Your task to perform on an android device: Open Google Chrome and open the bookmarks view Image 0: 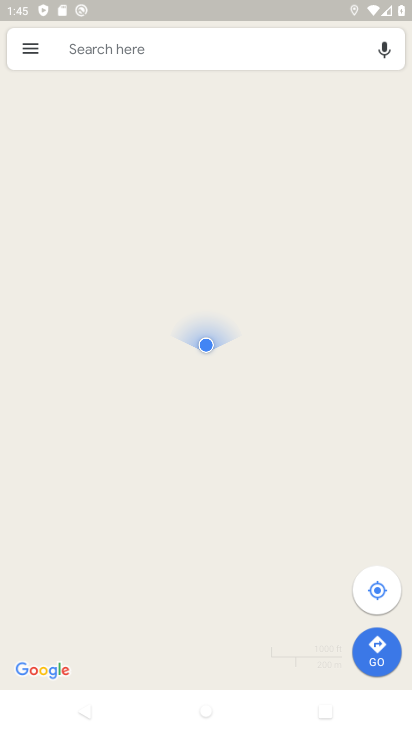
Step 0: press home button
Your task to perform on an android device: Open Google Chrome and open the bookmarks view Image 1: 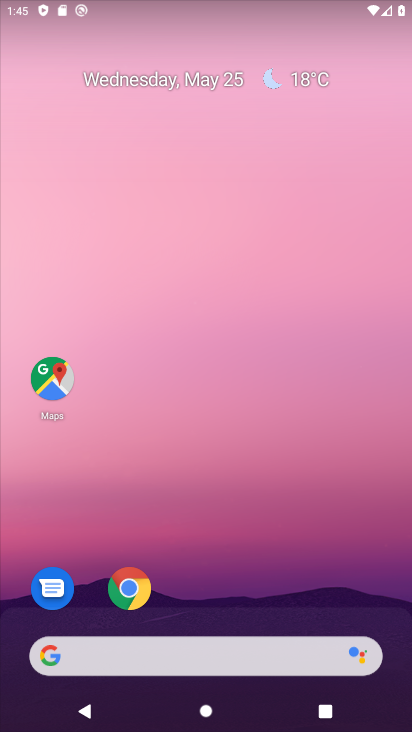
Step 1: click (127, 598)
Your task to perform on an android device: Open Google Chrome and open the bookmarks view Image 2: 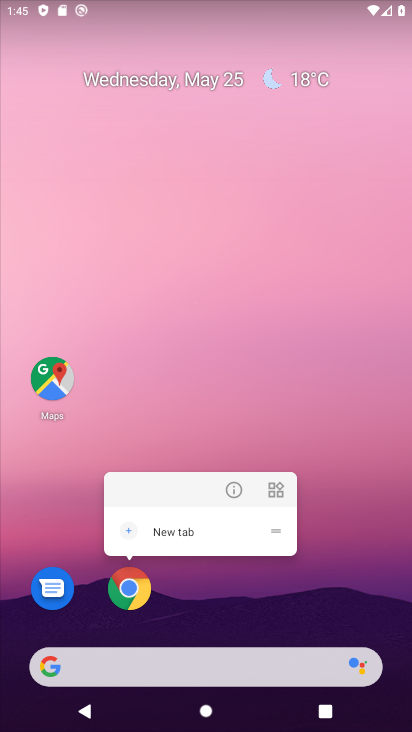
Step 2: click (150, 591)
Your task to perform on an android device: Open Google Chrome and open the bookmarks view Image 3: 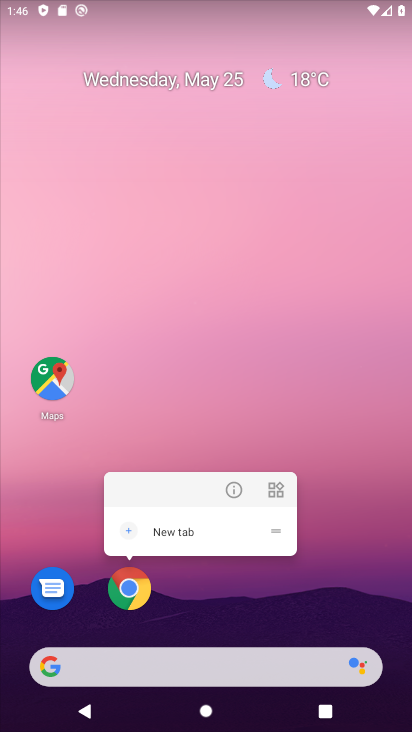
Step 3: click (150, 591)
Your task to perform on an android device: Open Google Chrome and open the bookmarks view Image 4: 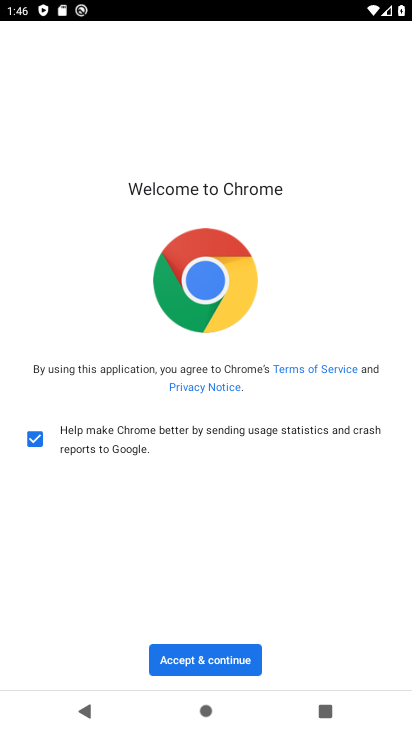
Step 4: click (217, 675)
Your task to perform on an android device: Open Google Chrome and open the bookmarks view Image 5: 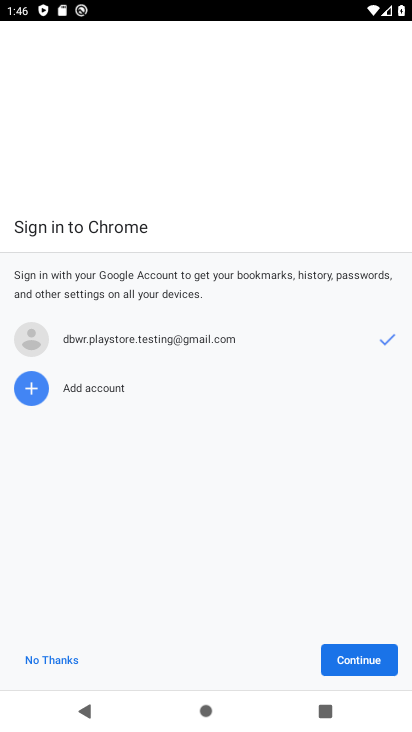
Step 5: click (378, 660)
Your task to perform on an android device: Open Google Chrome and open the bookmarks view Image 6: 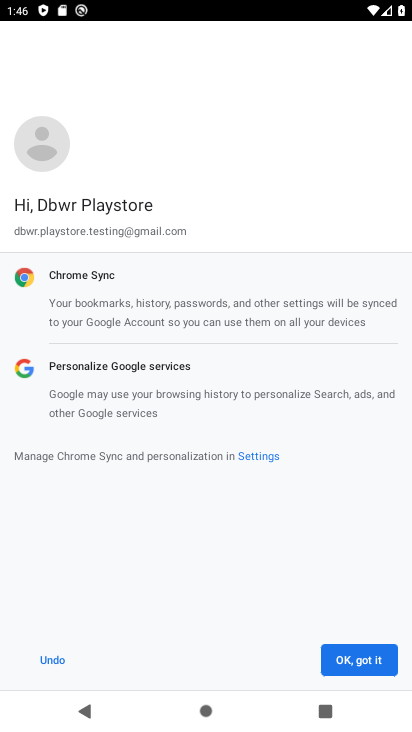
Step 6: click (377, 665)
Your task to perform on an android device: Open Google Chrome and open the bookmarks view Image 7: 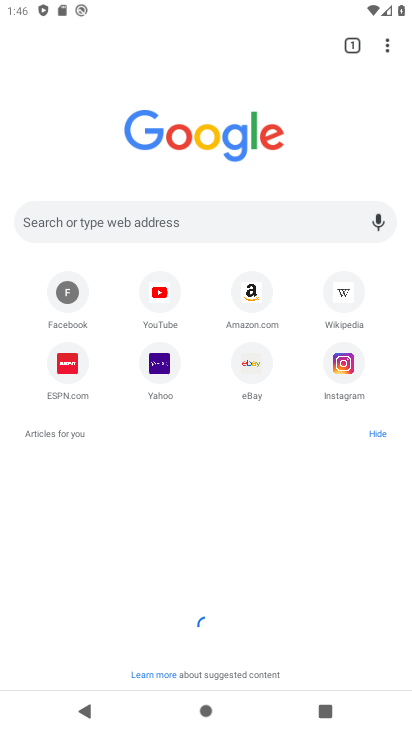
Step 7: task complete